Your task to perform on an android device: turn off picture-in-picture Image 0: 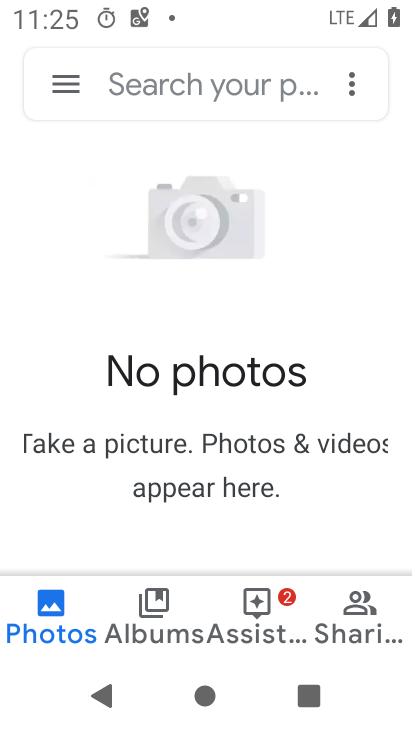
Step 0: press back button
Your task to perform on an android device: turn off picture-in-picture Image 1: 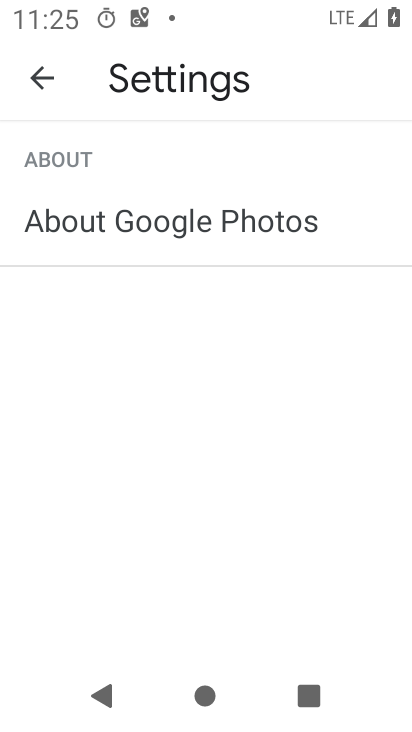
Step 1: press back button
Your task to perform on an android device: turn off picture-in-picture Image 2: 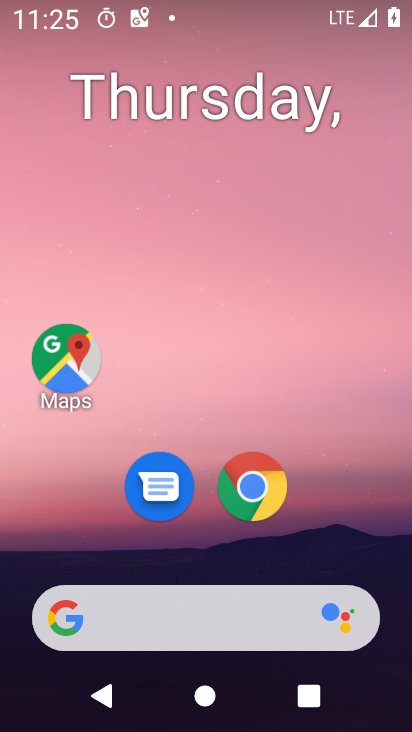
Step 2: drag from (195, 537) to (280, 48)
Your task to perform on an android device: turn off picture-in-picture Image 3: 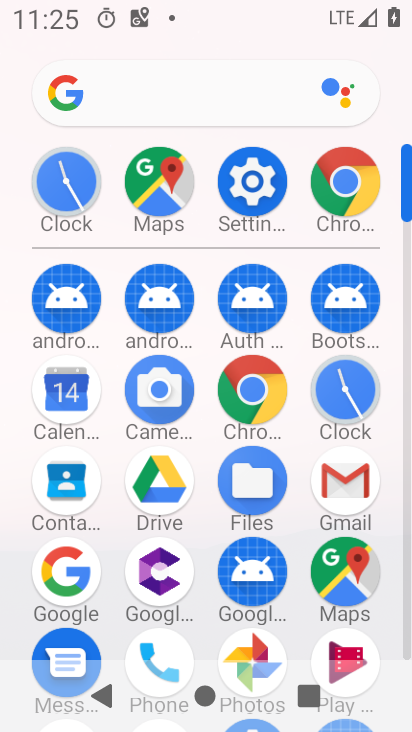
Step 3: click (252, 183)
Your task to perform on an android device: turn off picture-in-picture Image 4: 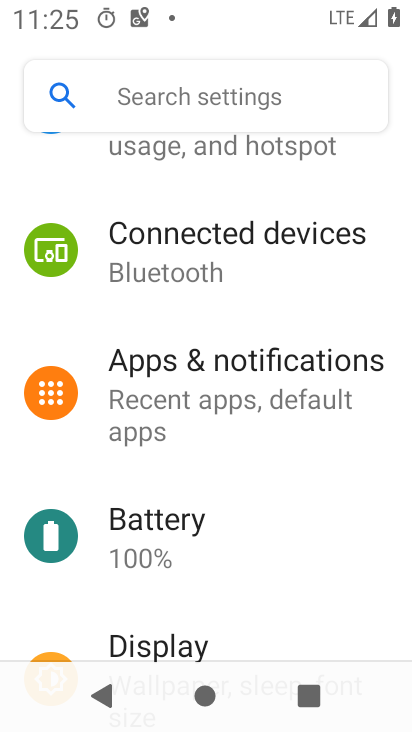
Step 4: click (189, 373)
Your task to perform on an android device: turn off picture-in-picture Image 5: 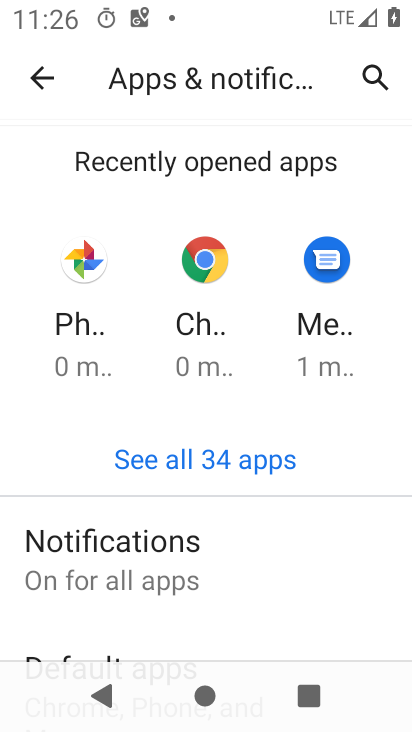
Step 5: drag from (175, 550) to (269, 122)
Your task to perform on an android device: turn off picture-in-picture Image 6: 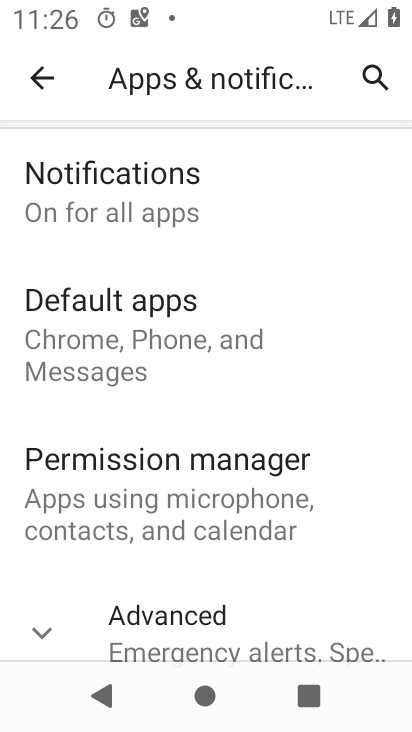
Step 6: drag from (198, 641) to (334, 67)
Your task to perform on an android device: turn off picture-in-picture Image 7: 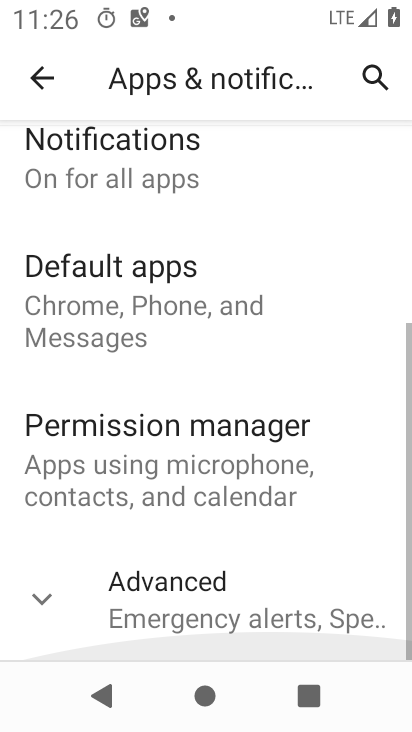
Step 7: click (187, 570)
Your task to perform on an android device: turn off picture-in-picture Image 8: 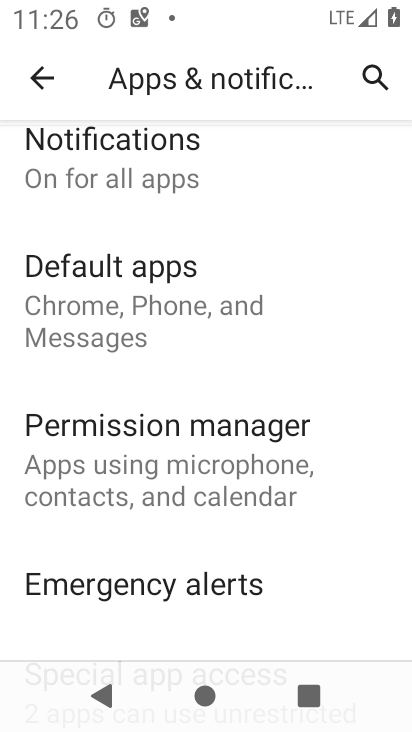
Step 8: drag from (199, 587) to (342, 60)
Your task to perform on an android device: turn off picture-in-picture Image 9: 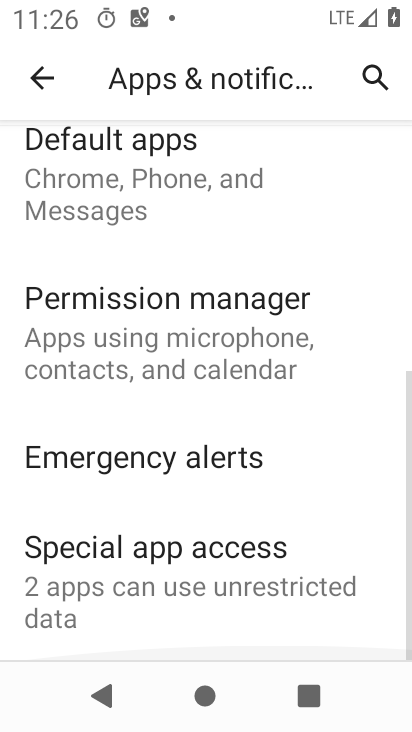
Step 9: click (133, 564)
Your task to perform on an android device: turn off picture-in-picture Image 10: 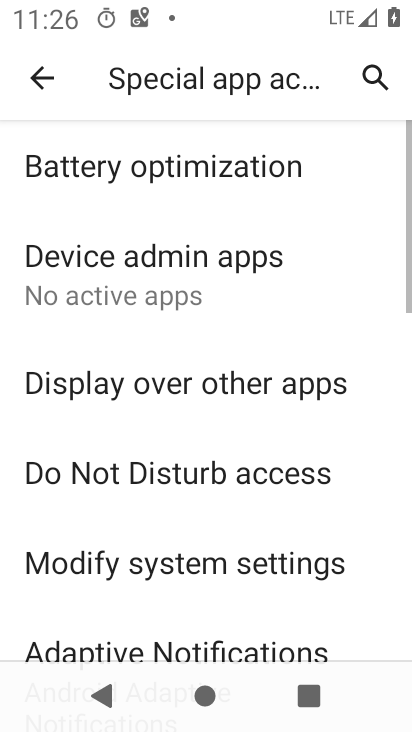
Step 10: drag from (155, 608) to (289, 79)
Your task to perform on an android device: turn off picture-in-picture Image 11: 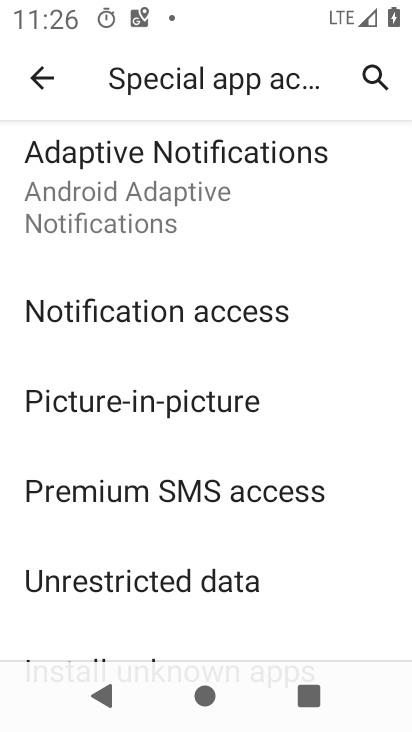
Step 11: click (129, 407)
Your task to perform on an android device: turn off picture-in-picture Image 12: 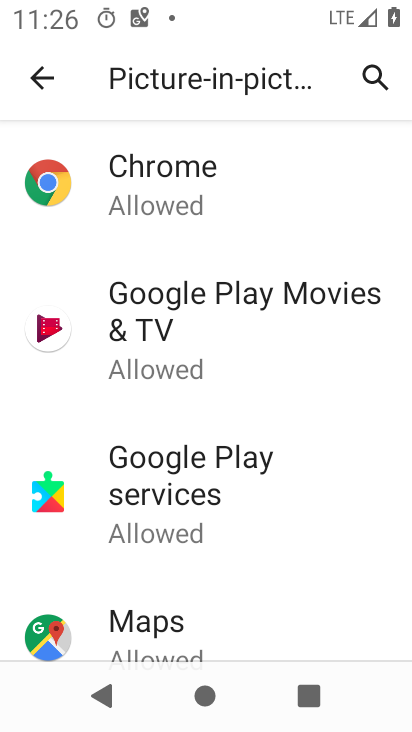
Step 12: click (197, 196)
Your task to perform on an android device: turn off picture-in-picture Image 13: 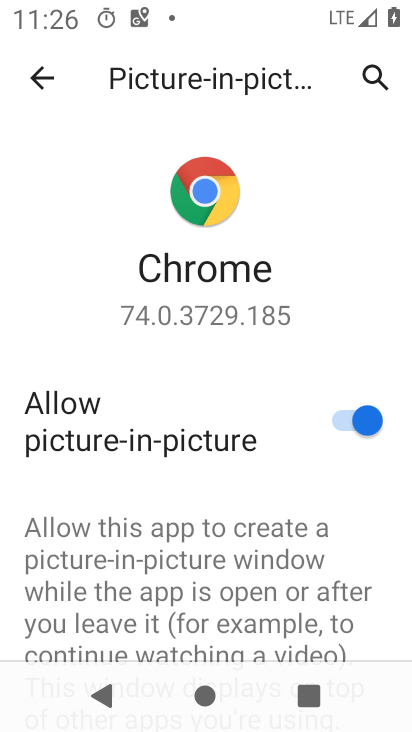
Step 13: click (353, 421)
Your task to perform on an android device: turn off picture-in-picture Image 14: 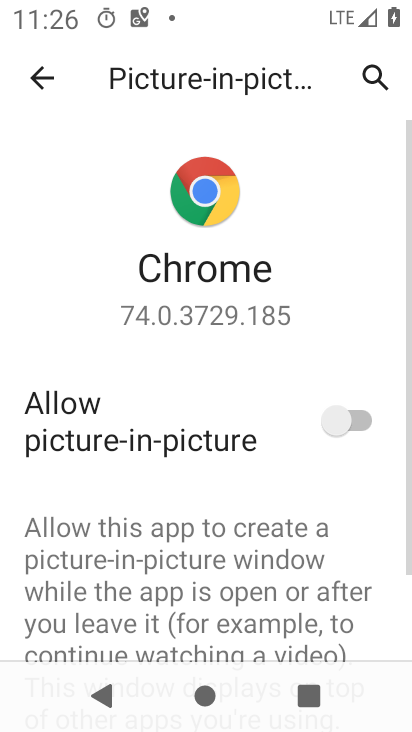
Step 14: task complete